Your task to perform on an android device: Open Yahoo.com Image 0: 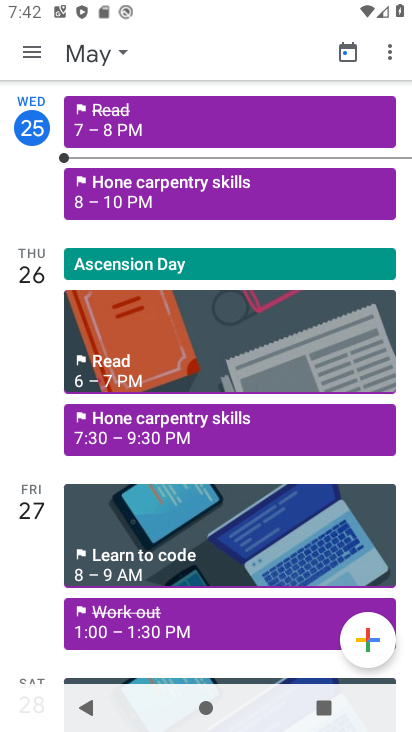
Step 0: press home button
Your task to perform on an android device: Open Yahoo.com Image 1: 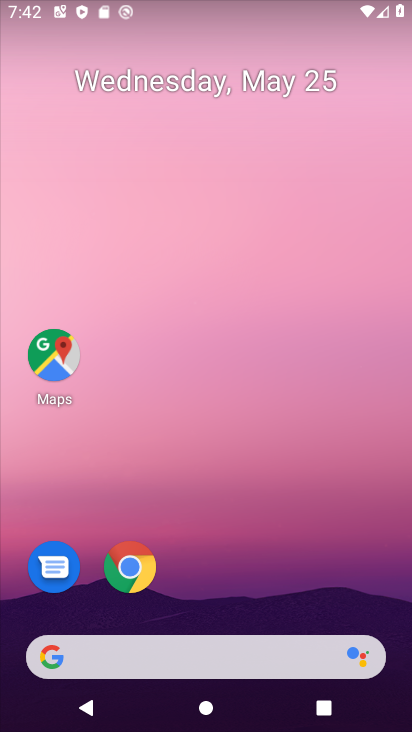
Step 1: click (123, 574)
Your task to perform on an android device: Open Yahoo.com Image 2: 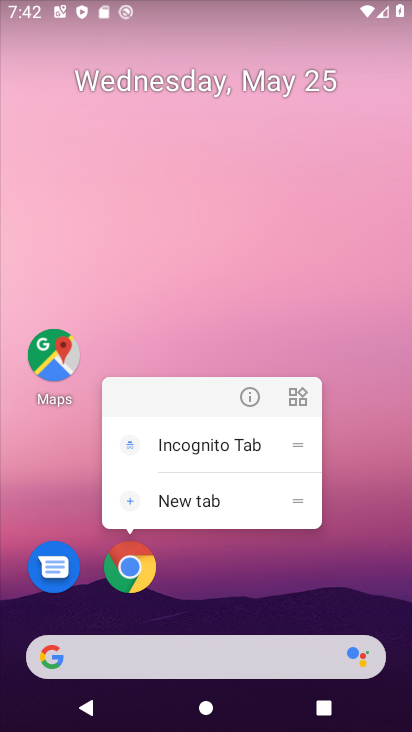
Step 2: click (123, 574)
Your task to perform on an android device: Open Yahoo.com Image 3: 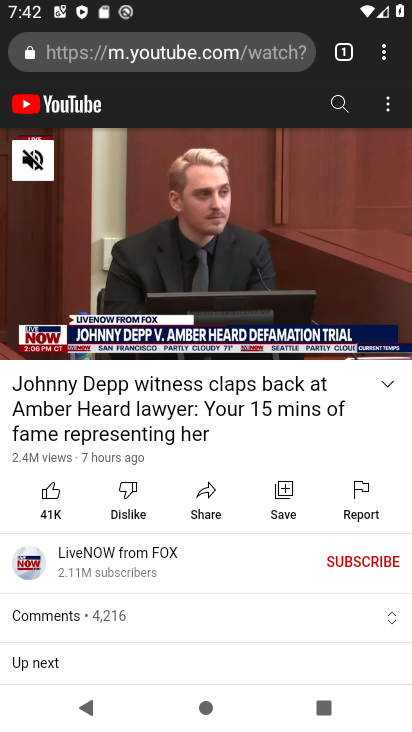
Step 3: click (248, 57)
Your task to perform on an android device: Open Yahoo.com Image 4: 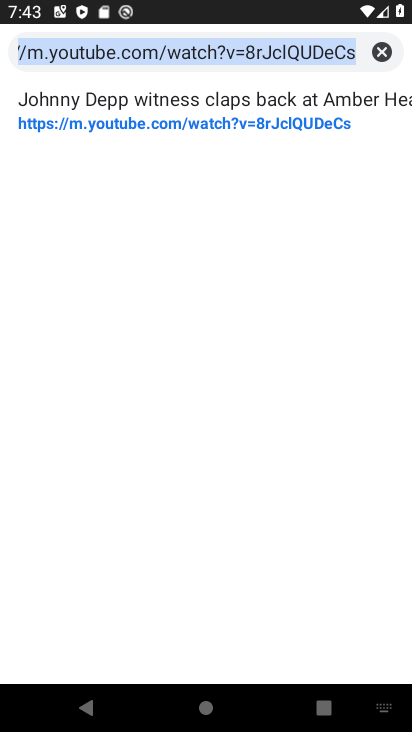
Step 4: type "yahoo.com"
Your task to perform on an android device: Open Yahoo.com Image 5: 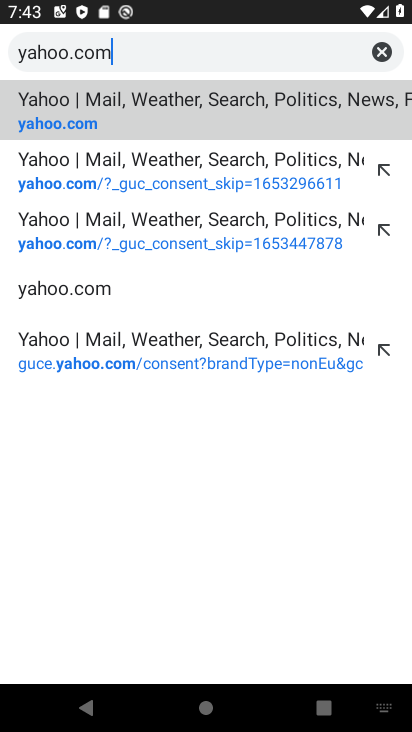
Step 5: click (169, 111)
Your task to perform on an android device: Open Yahoo.com Image 6: 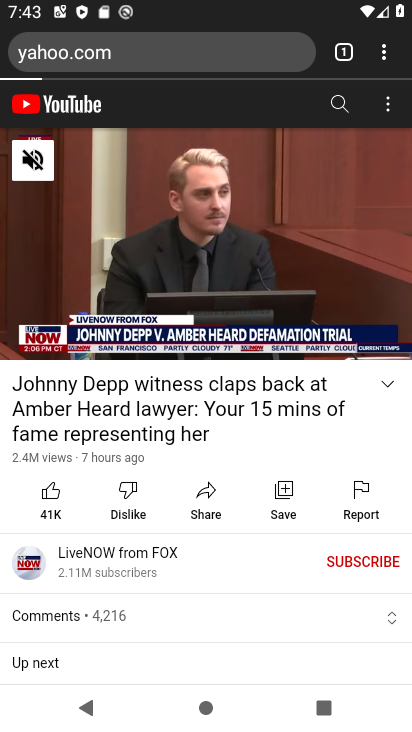
Step 6: task complete